Your task to perform on an android device: toggle translation in the chrome app Image 0: 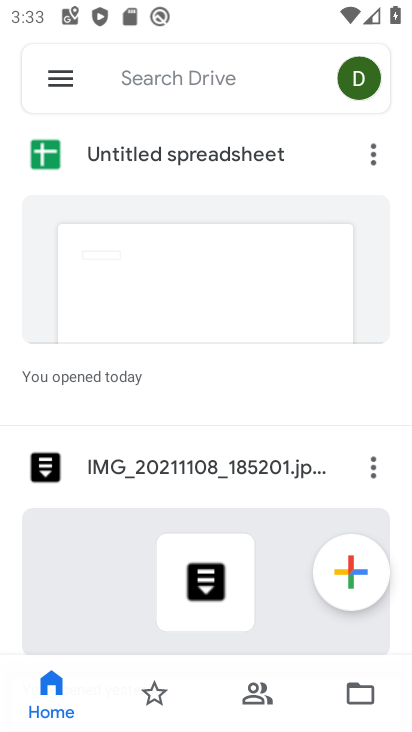
Step 0: press home button
Your task to perform on an android device: toggle translation in the chrome app Image 1: 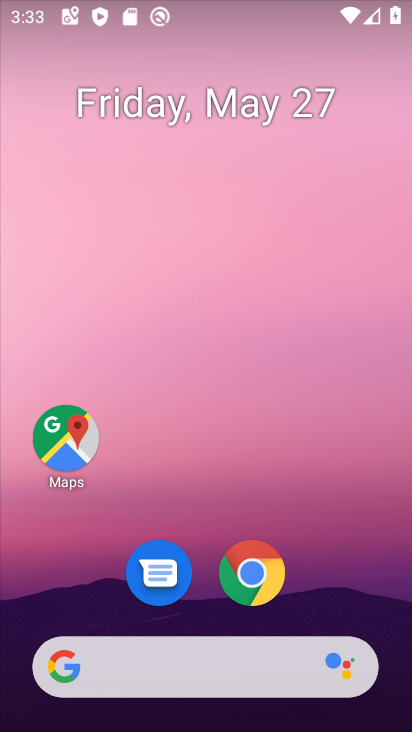
Step 1: click (251, 565)
Your task to perform on an android device: toggle translation in the chrome app Image 2: 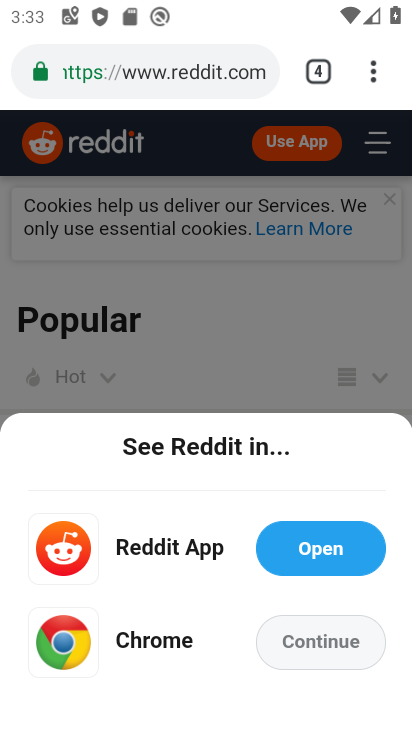
Step 2: click (374, 78)
Your task to perform on an android device: toggle translation in the chrome app Image 3: 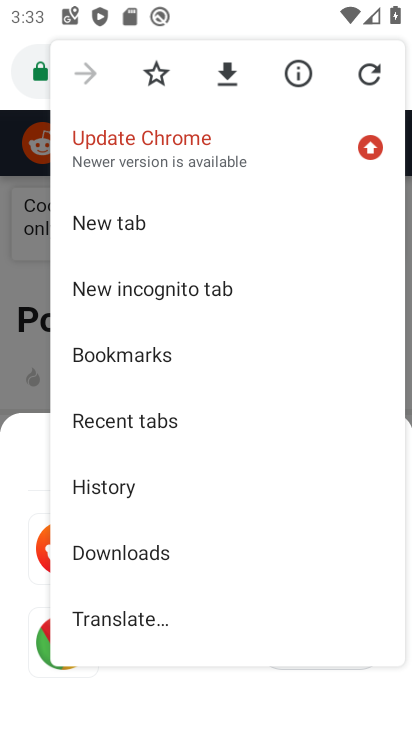
Step 3: drag from (232, 513) to (268, 197)
Your task to perform on an android device: toggle translation in the chrome app Image 4: 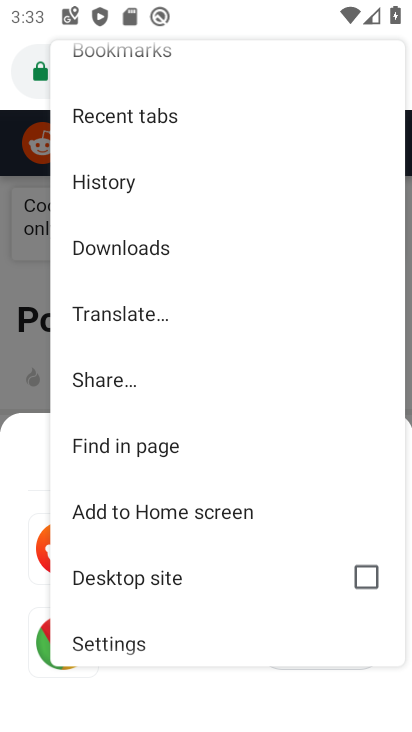
Step 4: click (173, 638)
Your task to perform on an android device: toggle translation in the chrome app Image 5: 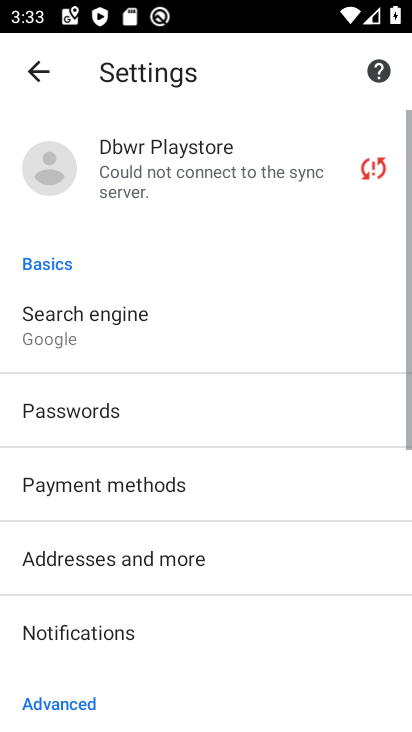
Step 5: drag from (256, 444) to (261, 70)
Your task to perform on an android device: toggle translation in the chrome app Image 6: 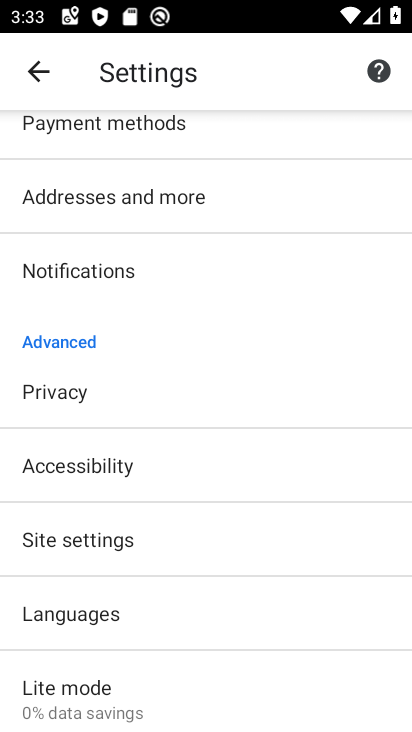
Step 6: click (201, 600)
Your task to perform on an android device: toggle translation in the chrome app Image 7: 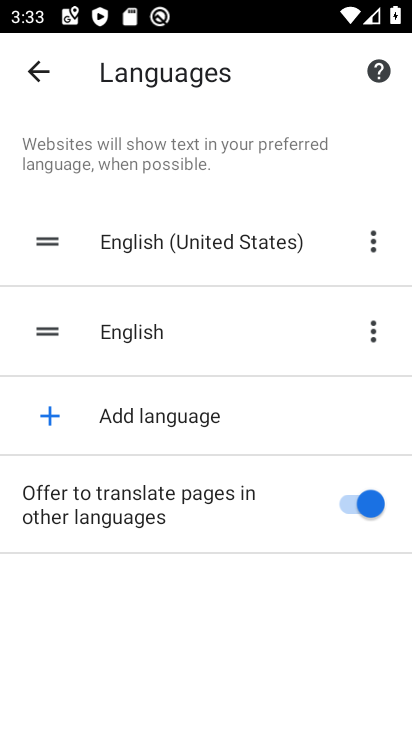
Step 7: click (355, 503)
Your task to perform on an android device: toggle translation in the chrome app Image 8: 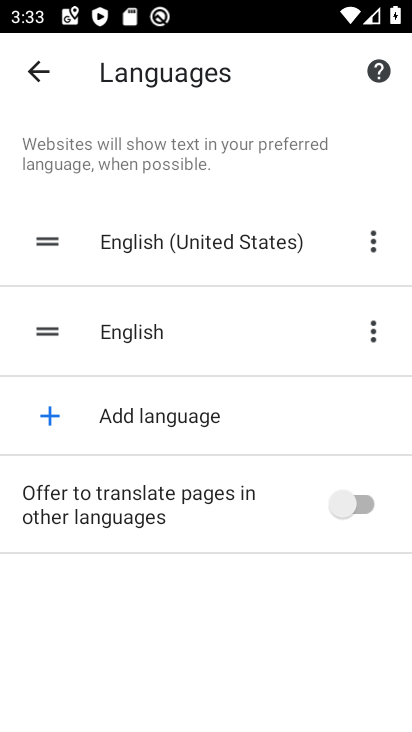
Step 8: task complete